Your task to perform on an android device: move a message to another label in the gmail app Image 0: 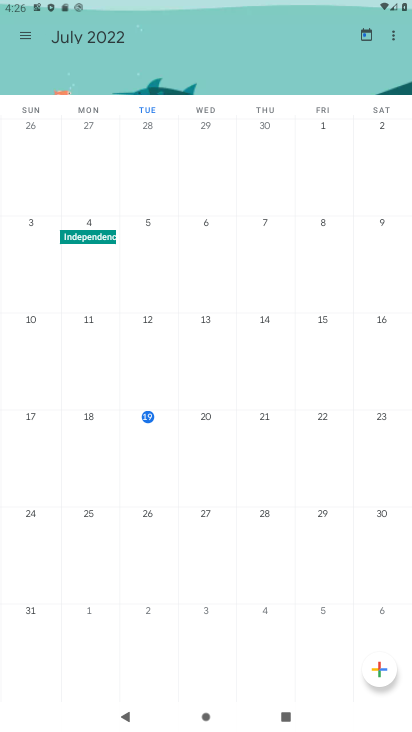
Step 0: press home button
Your task to perform on an android device: move a message to another label in the gmail app Image 1: 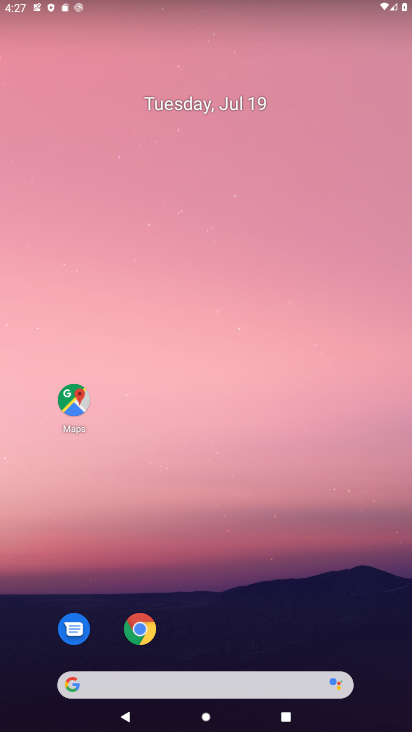
Step 1: drag from (230, 670) to (250, 336)
Your task to perform on an android device: move a message to another label in the gmail app Image 2: 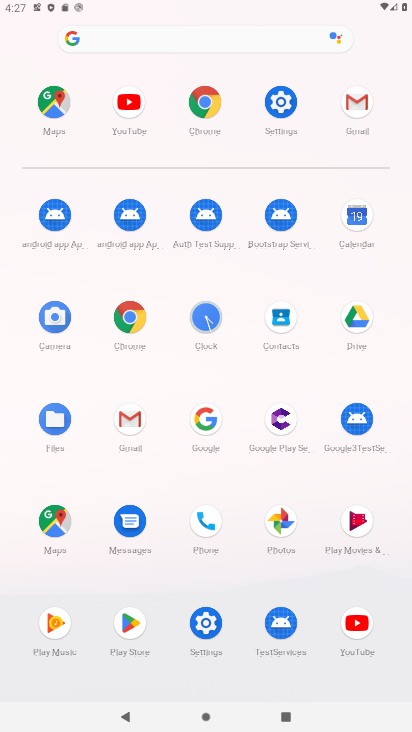
Step 2: click (128, 418)
Your task to perform on an android device: move a message to another label in the gmail app Image 3: 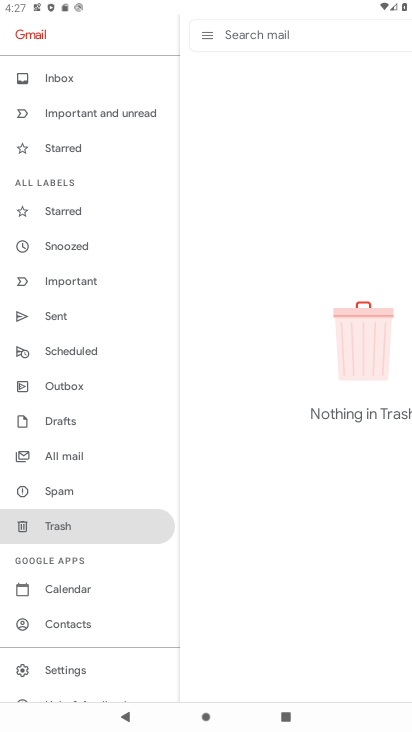
Step 3: click (43, 84)
Your task to perform on an android device: move a message to another label in the gmail app Image 4: 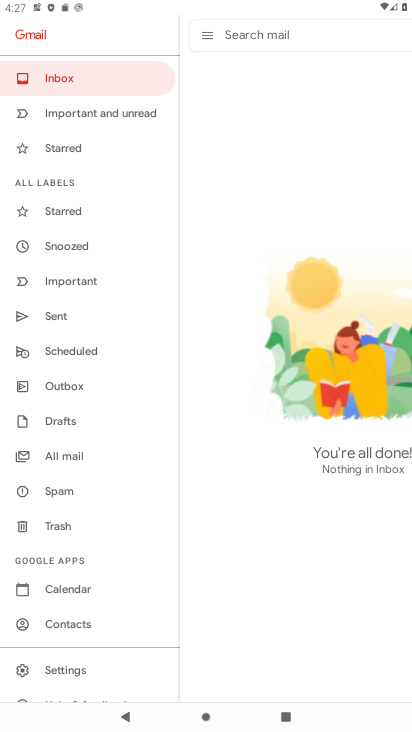
Step 4: task complete